Your task to perform on an android device: Open settings on Google Maps Image 0: 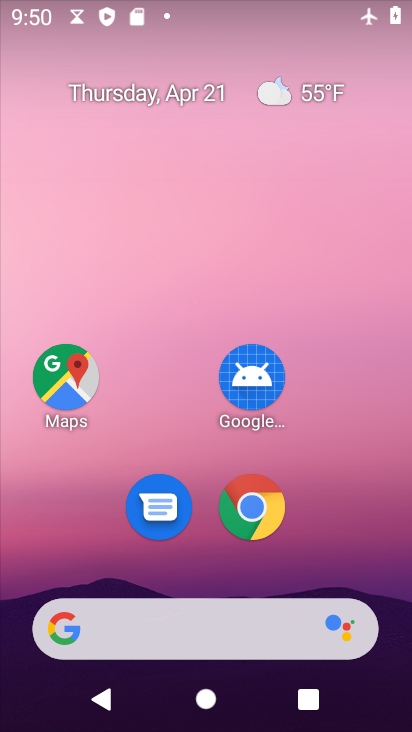
Step 0: drag from (337, 555) to (366, 166)
Your task to perform on an android device: Open settings on Google Maps Image 1: 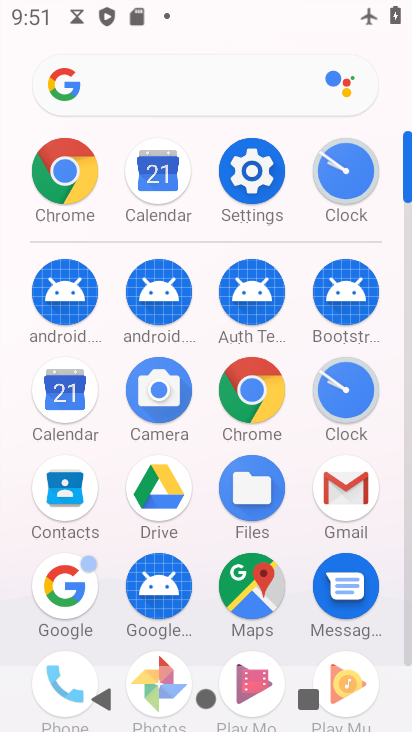
Step 1: click (60, 583)
Your task to perform on an android device: Open settings on Google Maps Image 2: 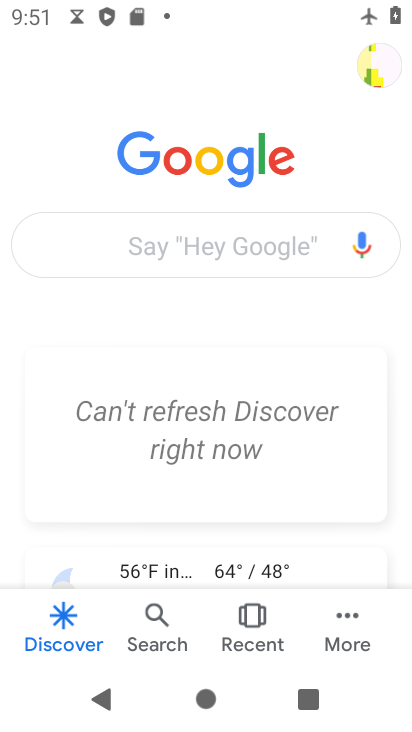
Step 2: press home button
Your task to perform on an android device: Open settings on Google Maps Image 3: 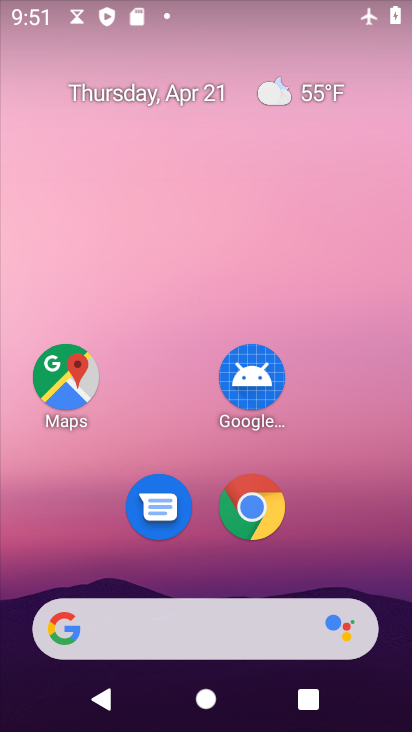
Step 3: drag from (322, 543) to (359, 193)
Your task to perform on an android device: Open settings on Google Maps Image 4: 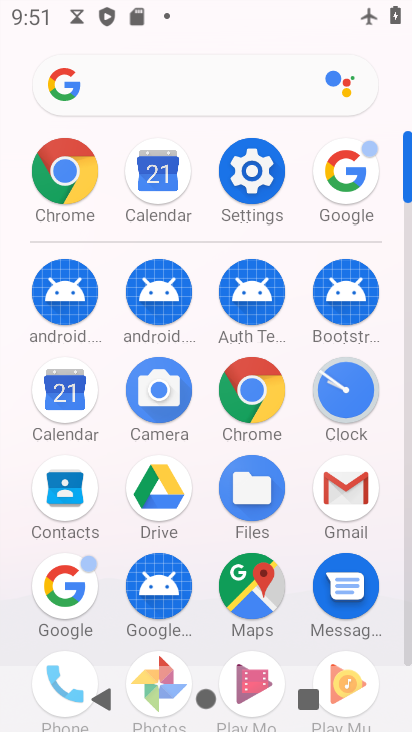
Step 4: click (254, 583)
Your task to perform on an android device: Open settings on Google Maps Image 5: 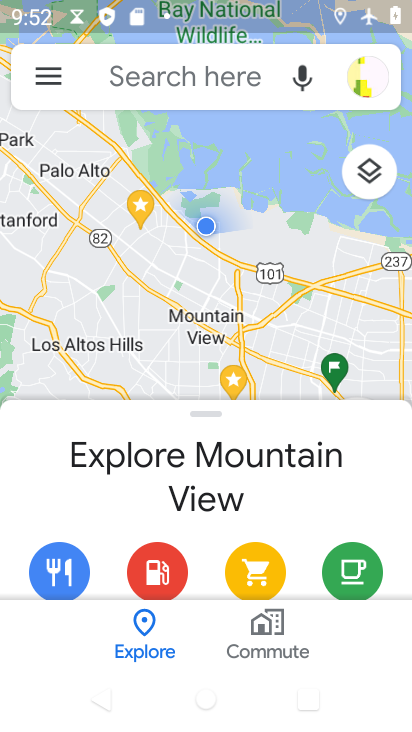
Step 5: task complete